Your task to perform on an android device: Search for "usb-c" on walmart.com, select the first entry, add it to the cart, then select checkout. Image 0: 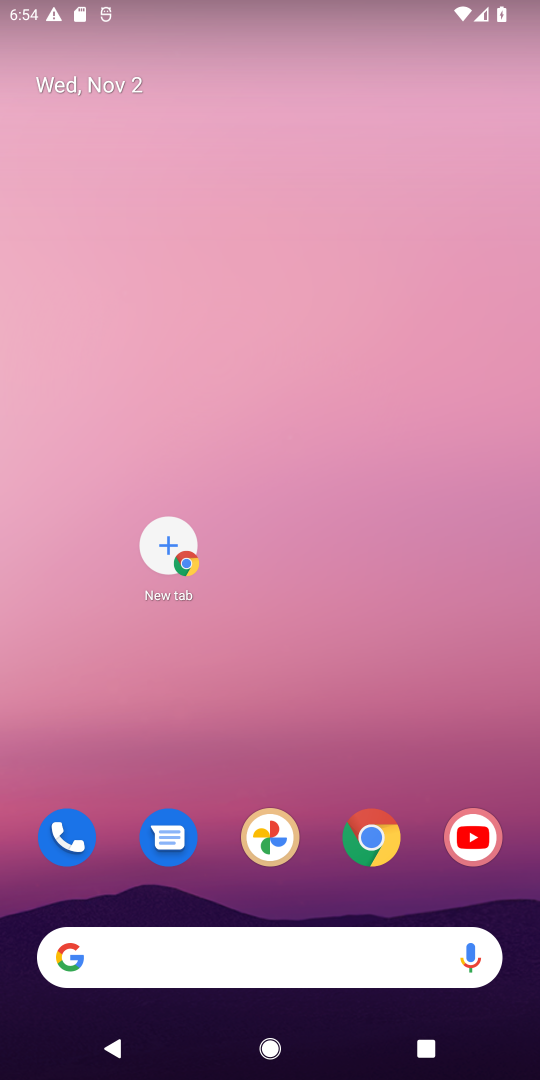
Step 0: click (167, 553)
Your task to perform on an android device: Search for "usb-c" on walmart.com, select the first entry, add it to the cart, then select checkout. Image 1: 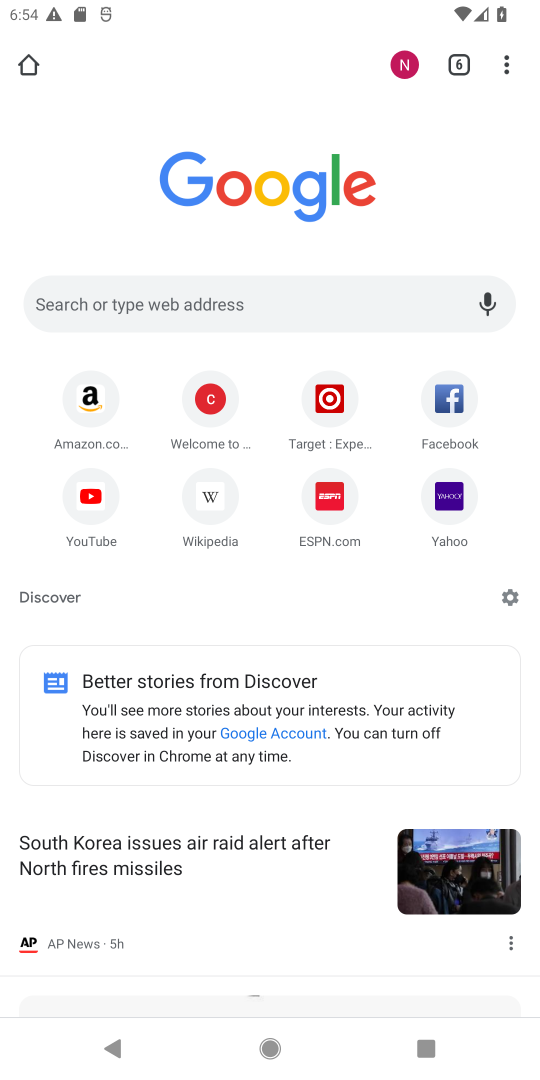
Step 1: click (242, 306)
Your task to perform on an android device: Search for "usb-c" on walmart.com, select the first entry, add it to the cart, then select checkout. Image 2: 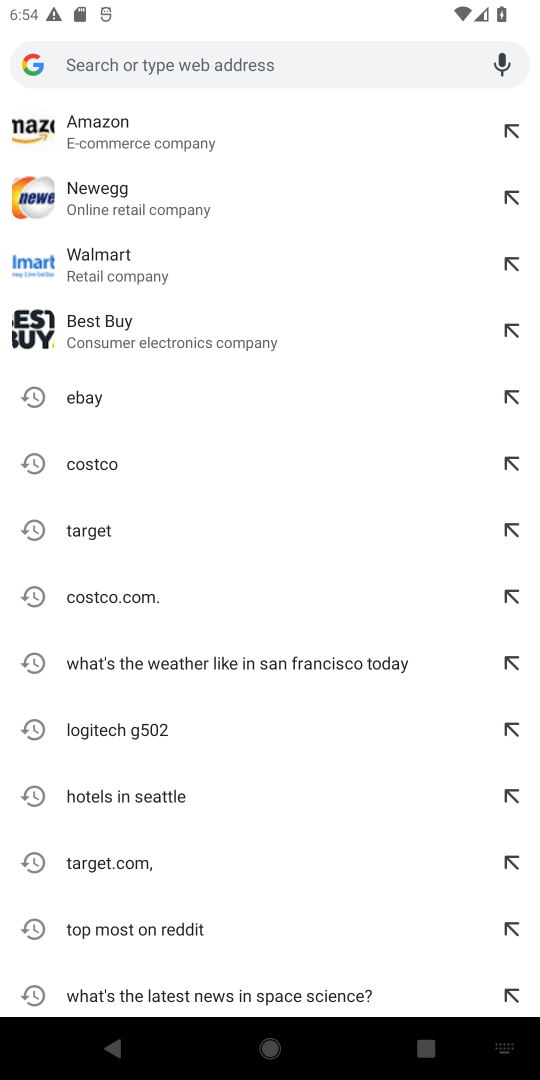
Step 2: type "walmark.com"
Your task to perform on an android device: Search for "usb-c" on walmart.com, select the first entry, add it to the cart, then select checkout. Image 3: 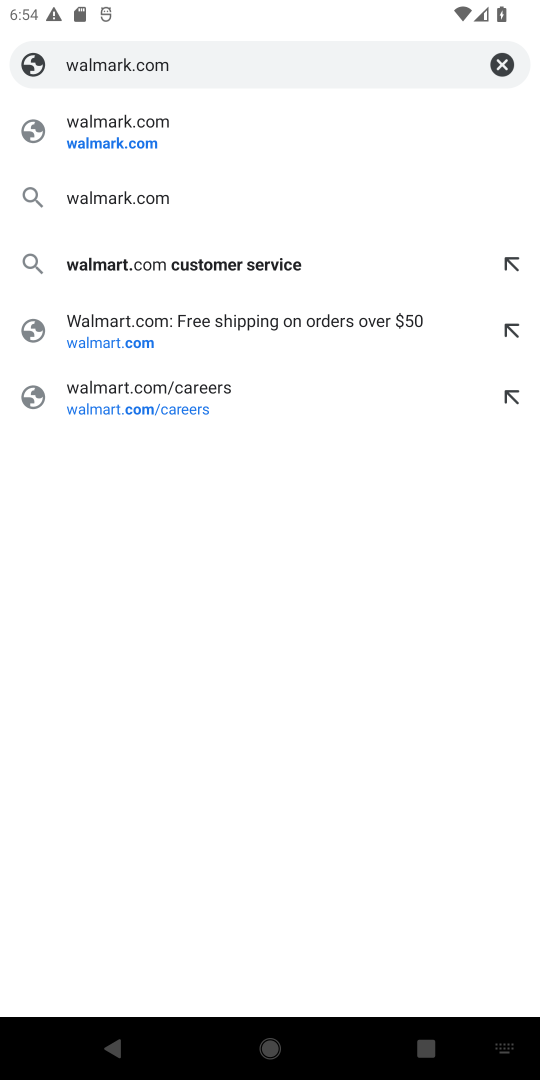
Step 3: click (216, 331)
Your task to perform on an android device: Search for "usb-c" on walmart.com, select the first entry, add it to the cart, then select checkout. Image 4: 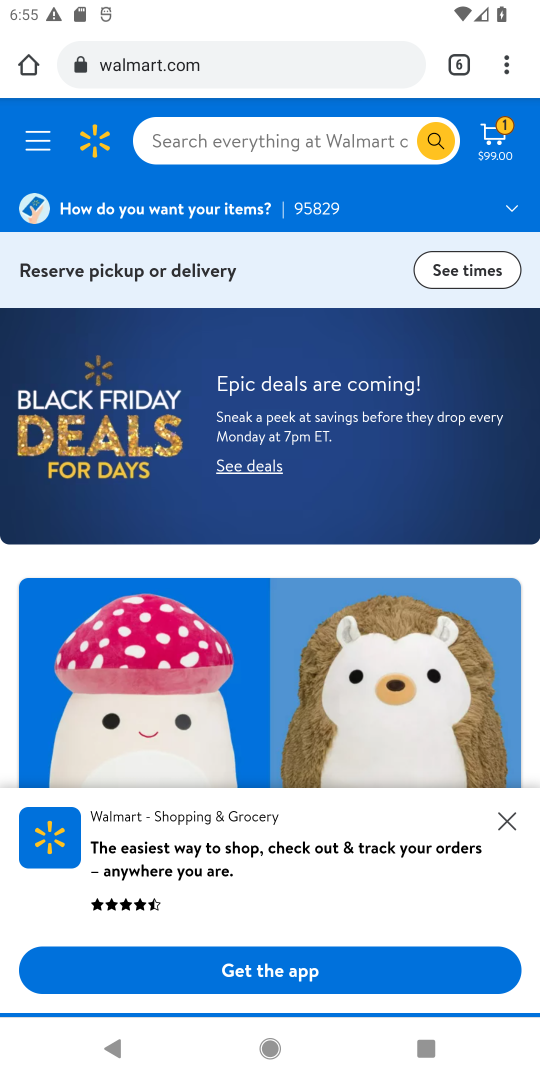
Step 4: click (232, 60)
Your task to perform on an android device: Search for "usb-c" on walmart.com, select the first entry, add it to the cart, then select checkout. Image 5: 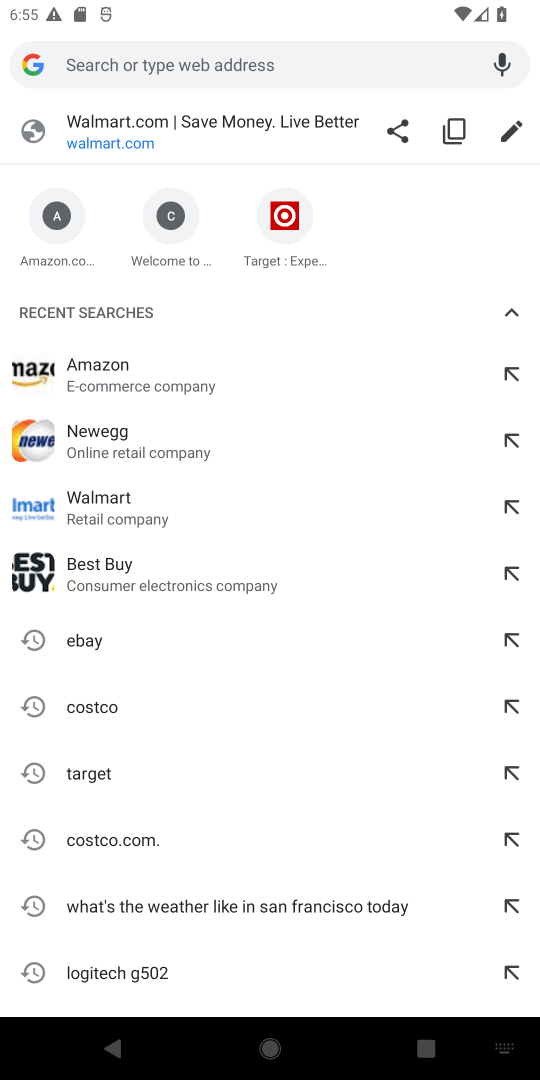
Step 5: type "walmart"
Your task to perform on an android device: Search for "usb-c" on walmart.com, select the first entry, add it to the cart, then select checkout. Image 6: 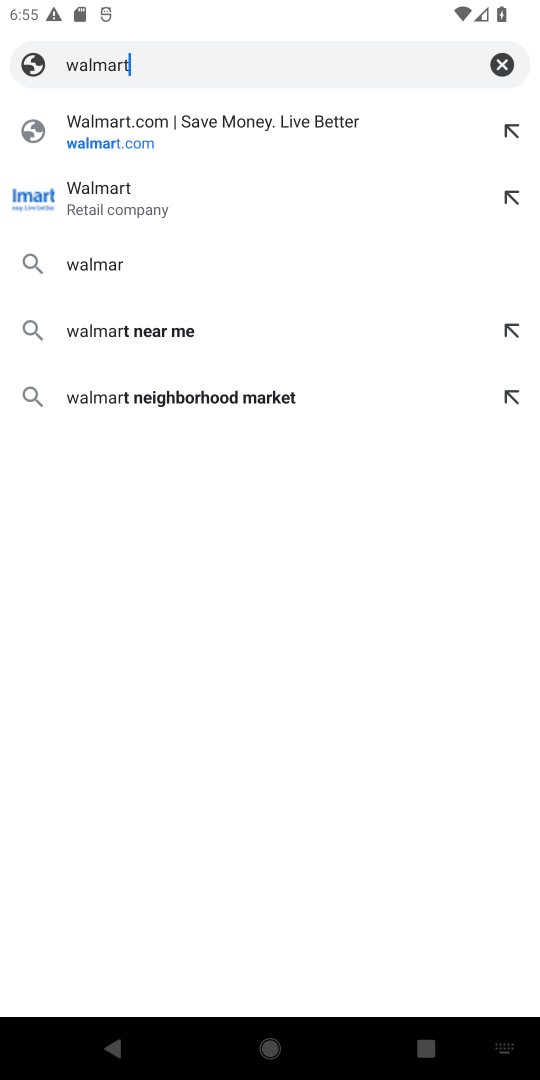
Step 6: type ""
Your task to perform on an android device: Search for "usb-c" on walmart.com, select the first entry, add it to the cart, then select checkout. Image 7: 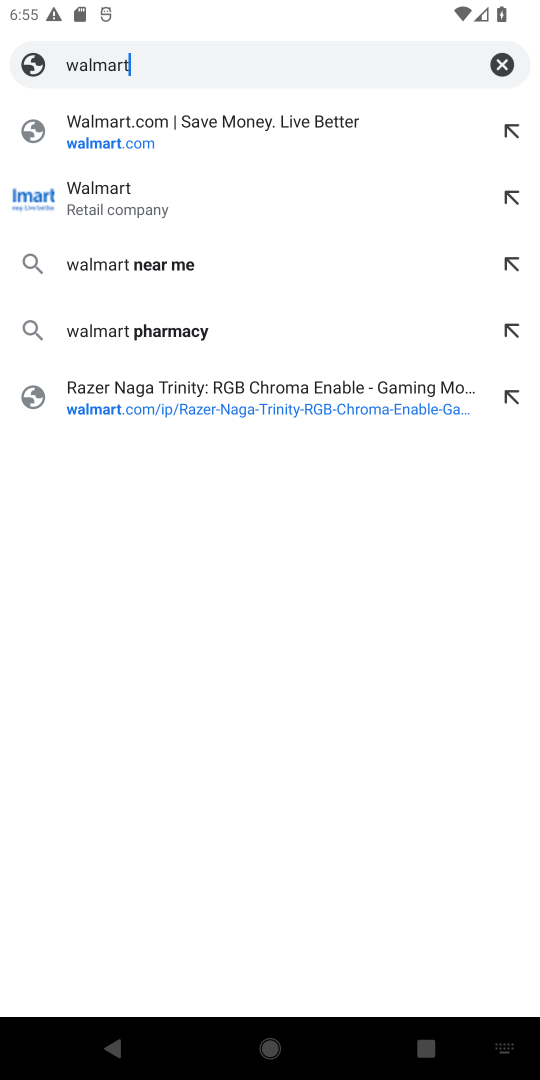
Step 7: click (107, 204)
Your task to perform on an android device: Search for "usb-c" on walmart.com, select the first entry, add it to the cart, then select checkout. Image 8: 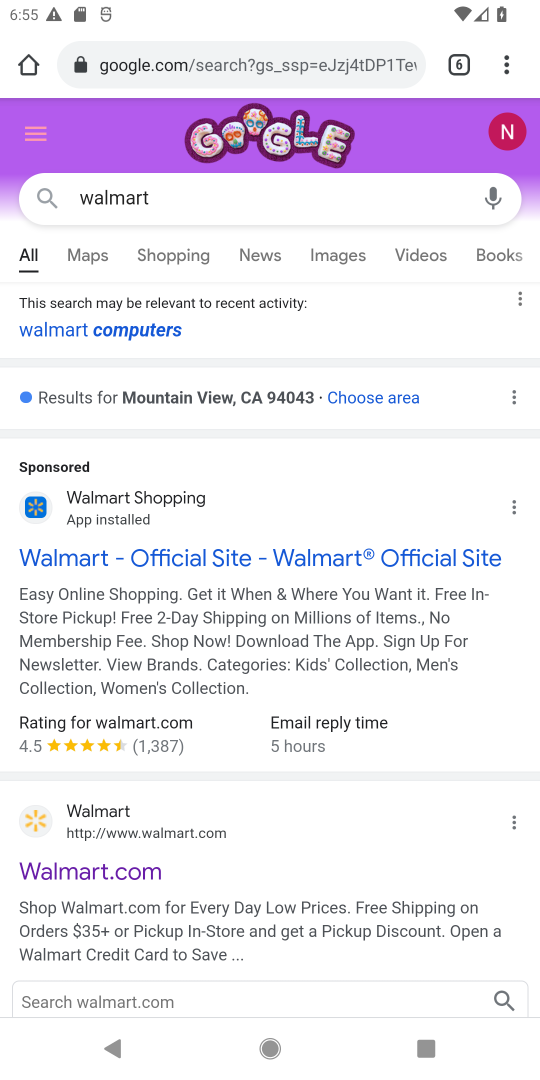
Step 8: click (216, 559)
Your task to perform on an android device: Search for "usb-c" on walmart.com, select the first entry, add it to the cart, then select checkout. Image 9: 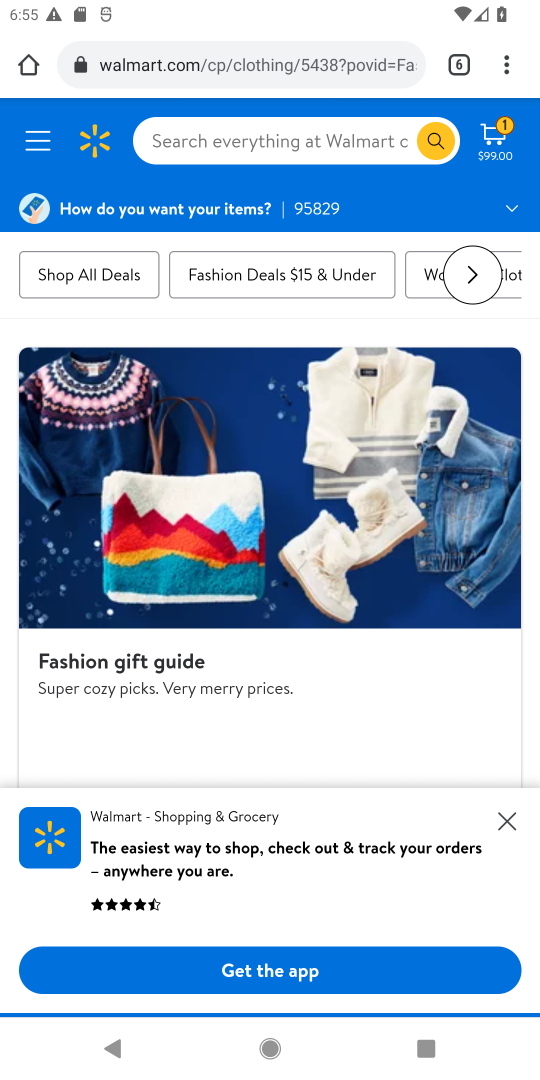
Step 9: click (234, 146)
Your task to perform on an android device: Search for "usb-c" on walmart.com, select the first entry, add it to the cart, then select checkout. Image 10: 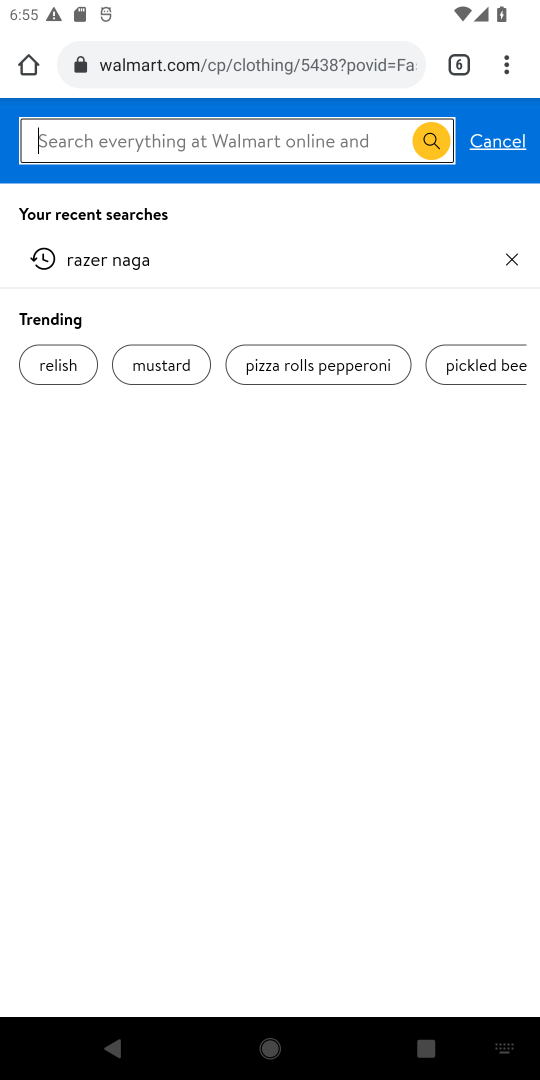
Step 10: type "usb-c"
Your task to perform on an android device: Search for "usb-c" on walmart.com, select the first entry, add it to the cart, then select checkout. Image 11: 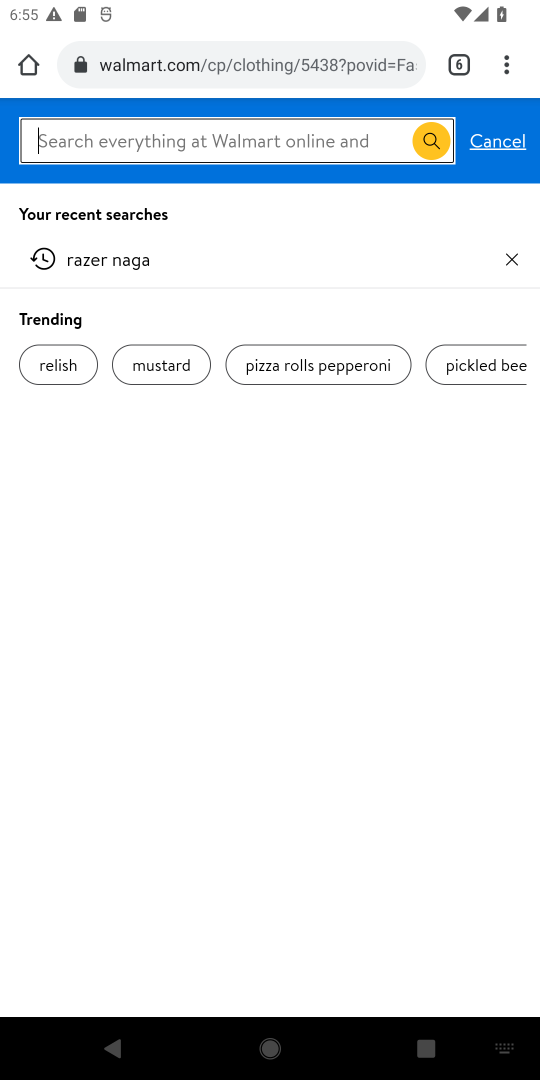
Step 11: type ""
Your task to perform on an android device: Search for "usb-c" on walmart.com, select the first entry, add it to the cart, then select checkout. Image 12: 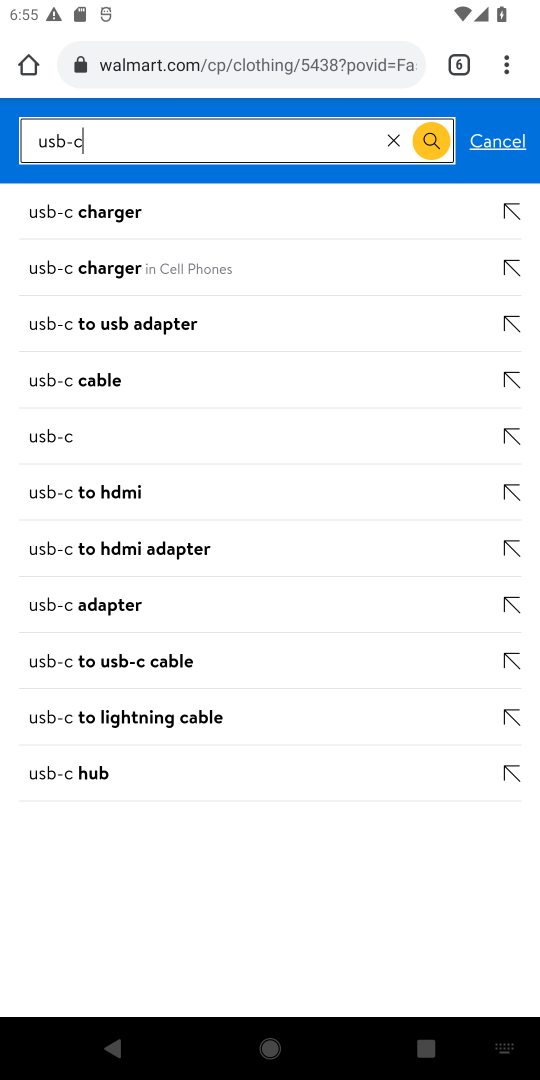
Step 12: click (119, 218)
Your task to perform on an android device: Search for "usb-c" on walmart.com, select the first entry, add it to the cart, then select checkout. Image 13: 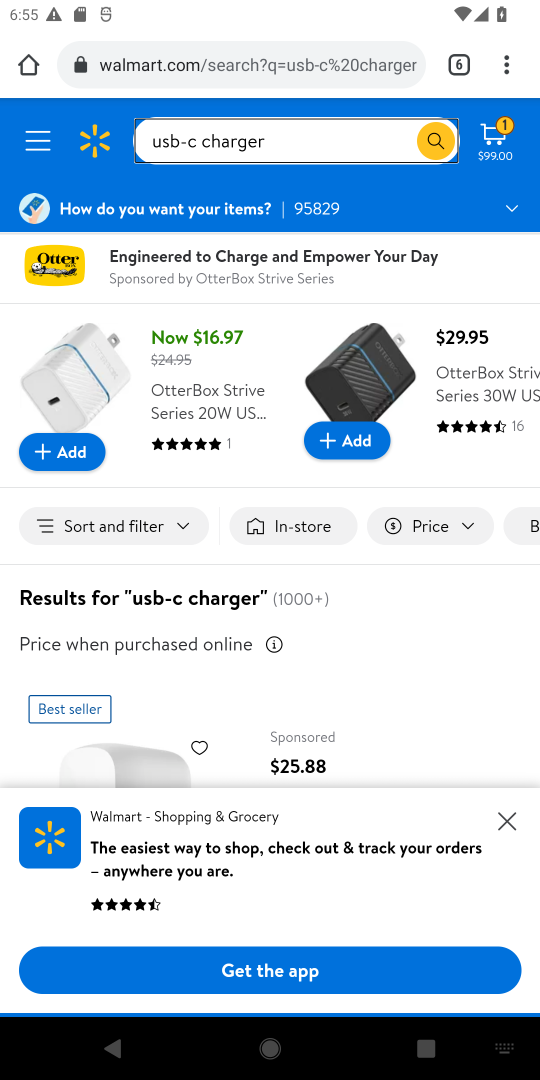
Step 13: drag from (308, 661) to (335, 439)
Your task to perform on an android device: Search for "usb-c" on walmart.com, select the first entry, add it to the cart, then select checkout. Image 14: 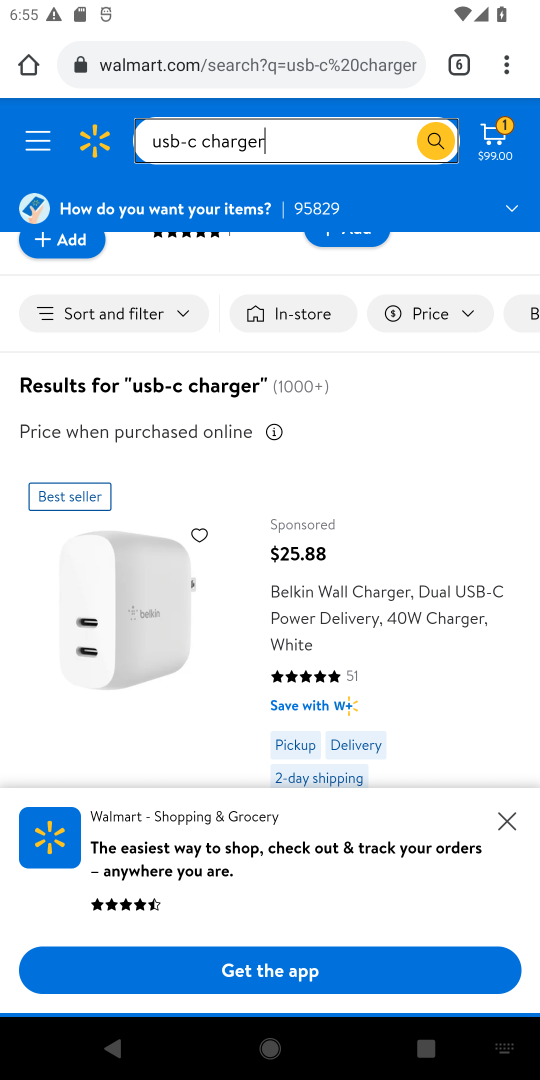
Step 14: drag from (296, 673) to (308, 533)
Your task to perform on an android device: Search for "usb-c" on walmart.com, select the first entry, add it to the cart, then select checkout. Image 15: 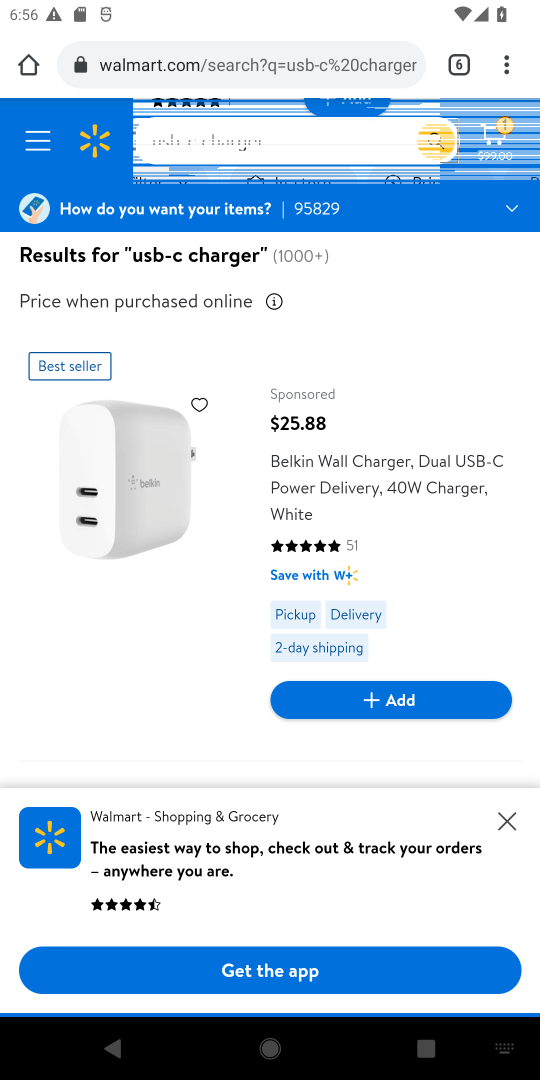
Step 15: click (500, 822)
Your task to perform on an android device: Search for "usb-c" on walmart.com, select the first entry, add it to the cart, then select checkout. Image 16: 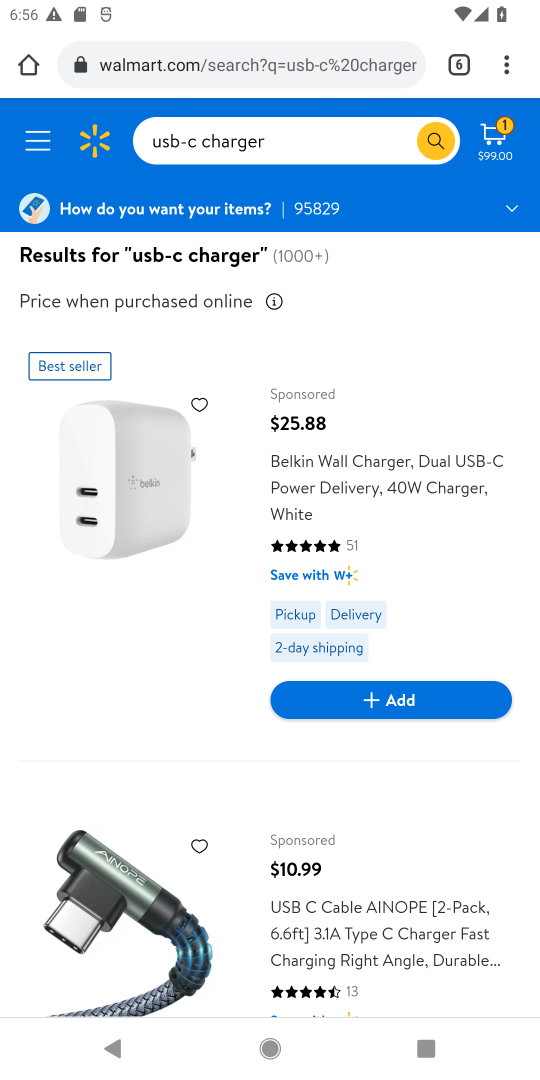
Step 16: drag from (317, 896) to (324, 786)
Your task to perform on an android device: Search for "usb-c" on walmart.com, select the first entry, add it to the cart, then select checkout. Image 17: 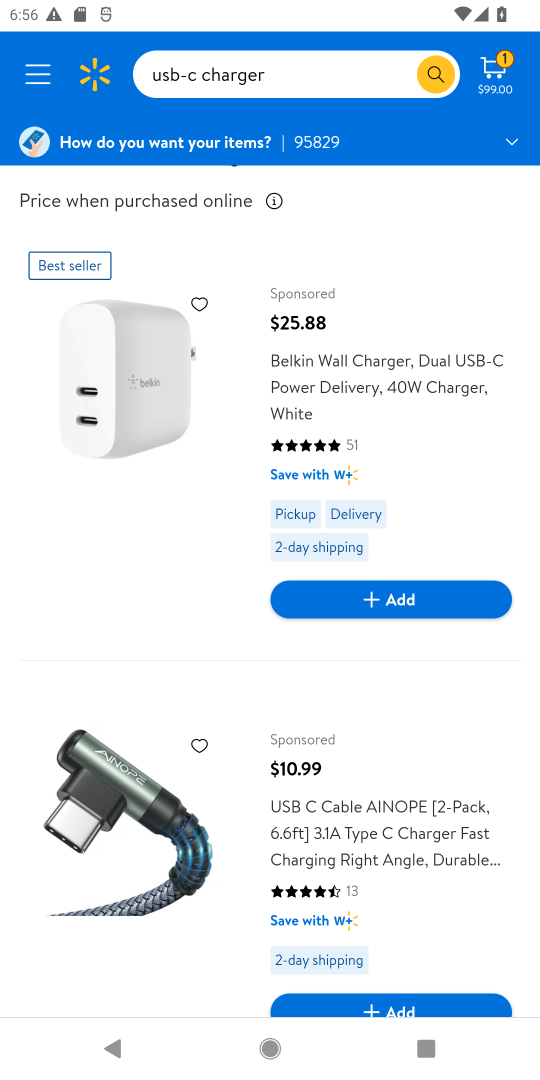
Step 17: drag from (338, 836) to (350, 756)
Your task to perform on an android device: Search for "usb-c" on walmart.com, select the first entry, add it to the cart, then select checkout. Image 18: 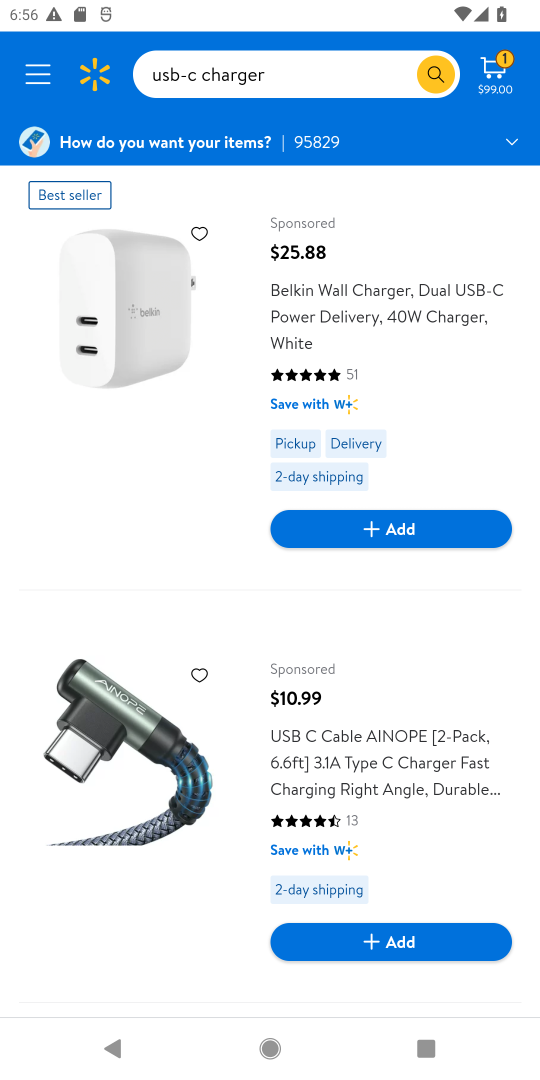
Step 18: click (270, 730)
Your task to perform on an android device: Search for "usb-c" on walmart.com, select the first entry, add it to the cart, then select checkout. Image 19: 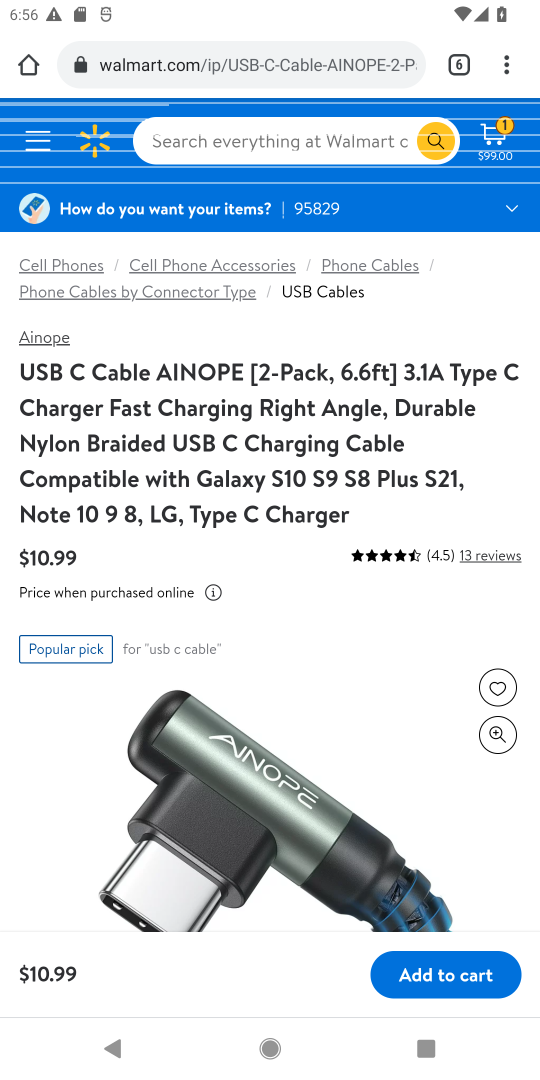
Step 19: drag from (273, 798) to (325, 676)
Your task to perform on an android device: Search for "usb-c" on walmart.com, select the first entry, add it to the cart, then select checkout. Image 20: 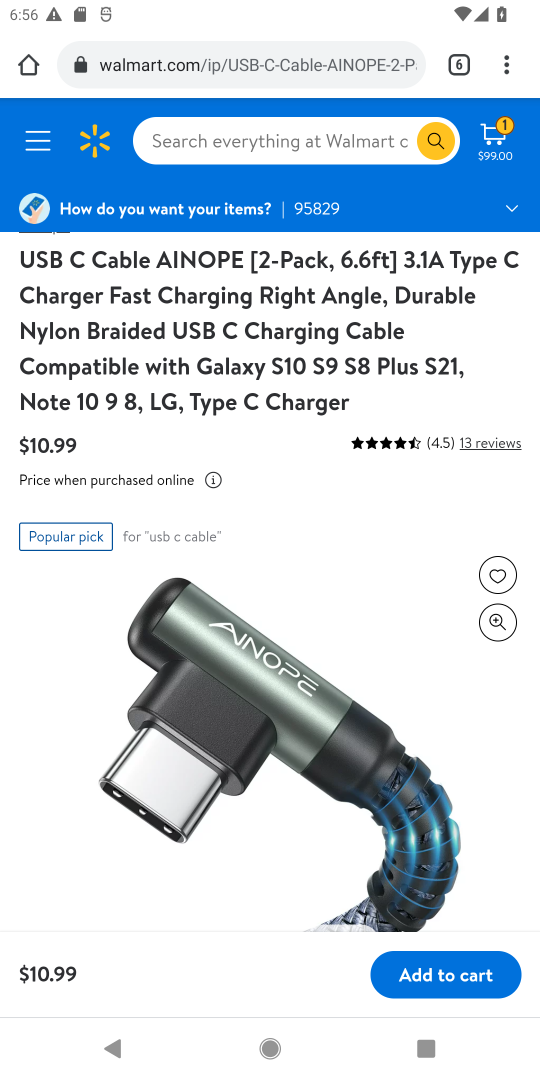
Step 20: drag from (321, 704) to (305, 415)
Your task to perform on an android device: Search for "usb-c" on walmart.com, select the first entry, add it to the cart, then select checkout. Image 21: 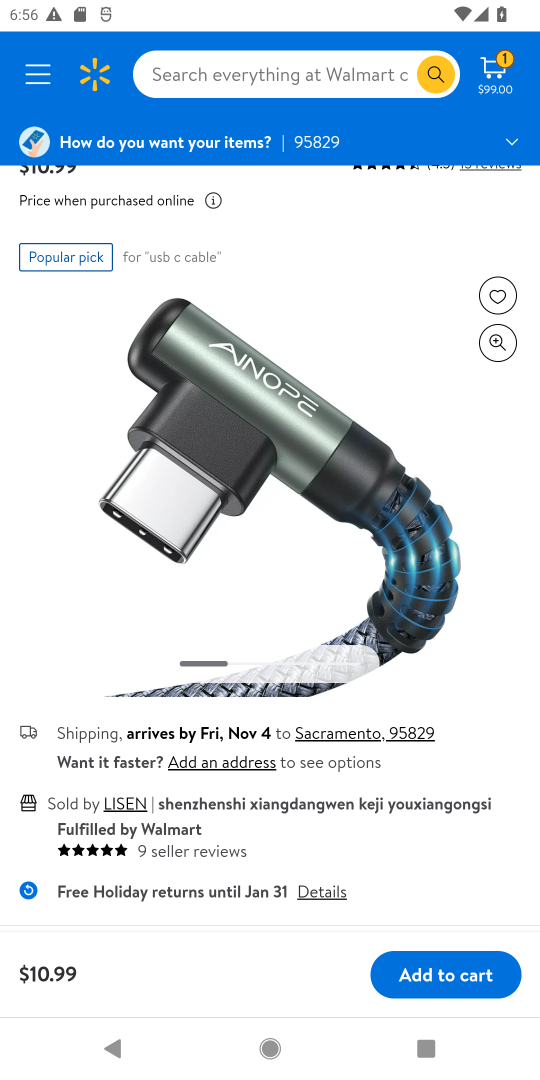
Step 21: drag from (255, 563) to (263, 348)
Your task to perform on an android device: Search for "usb-c" on walmart.com, select the first entry, add it to the cart, then select checkout. Image 22: 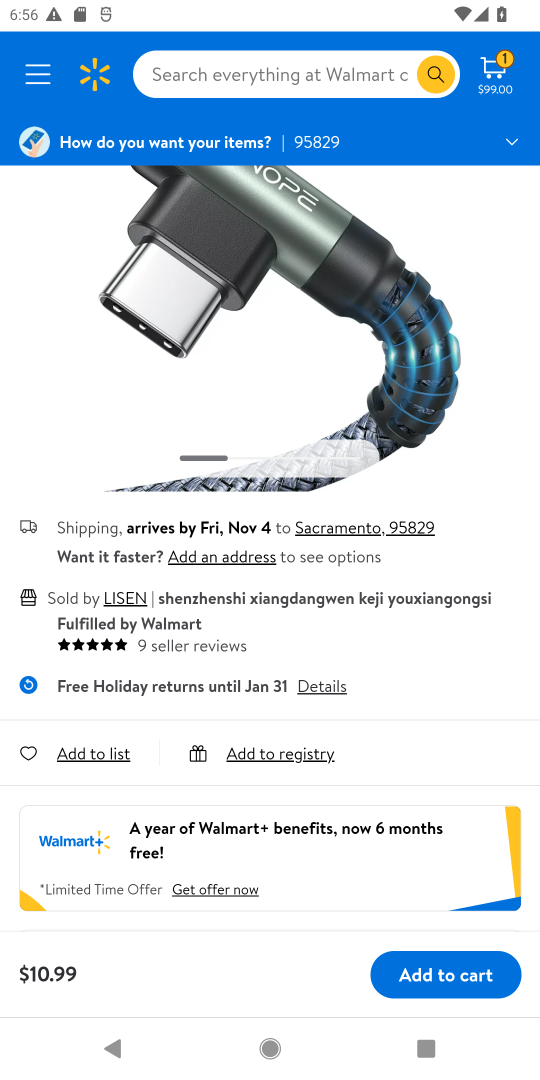
Step 22: drag from (276, 736) to (327, 339)
Your task to perform on an android device: Search for "usb-c" on walmart.com, select the first entry, add it to the cart, then select checkout. Image 23: 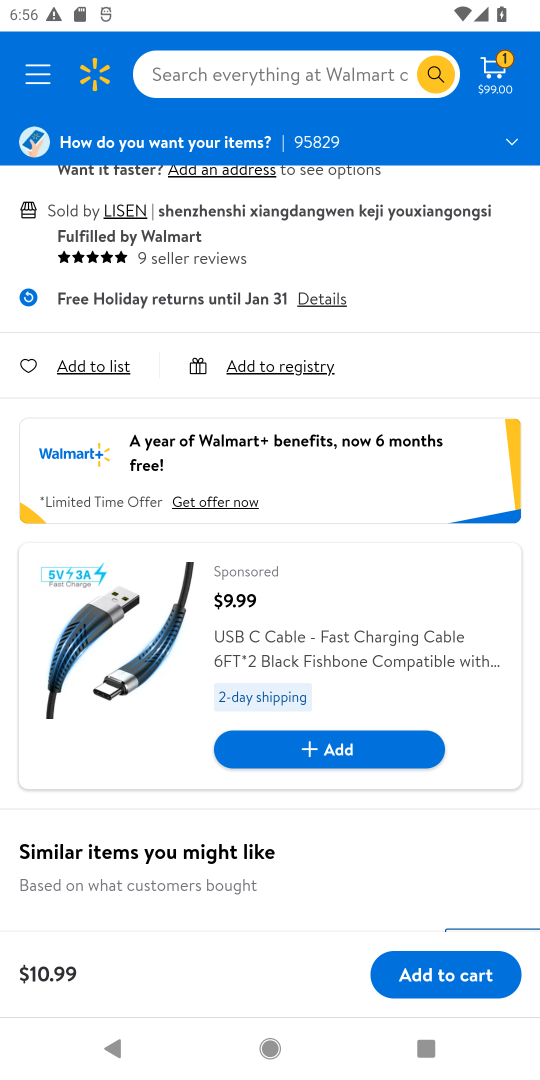
Step 23: click (258, 877)
Your task to perform on an android device: Search for "usb-c" on walmart.com, select the first entry, add it to the cart, then select checkout. Image 24: 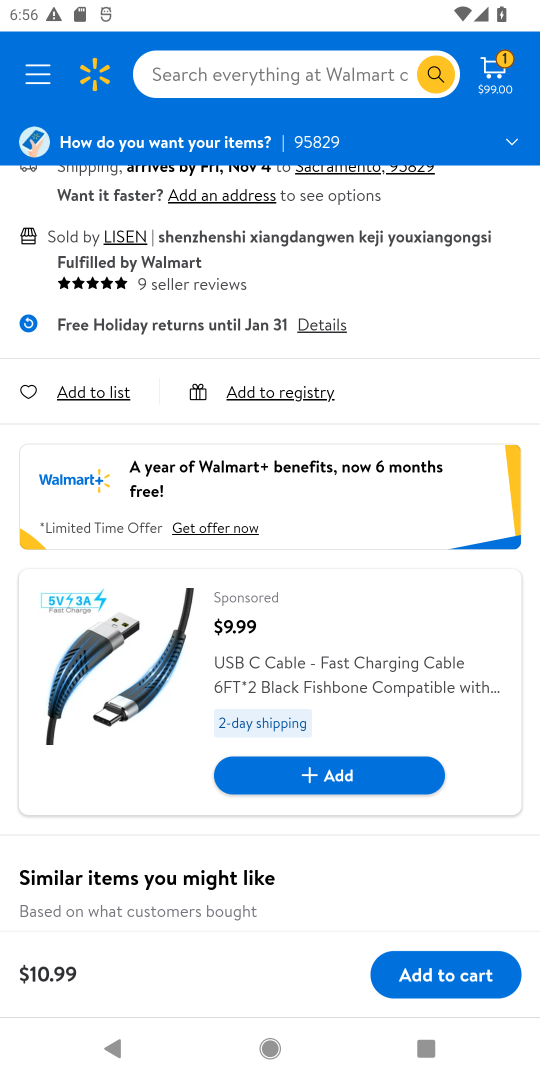
Step 24: drag from (353, 460) to (316, 822)
Your task to perform on an android device: Search for "usb-c" on walmart.com, select the first entry, add it to the cart, then select checkout. Image 25: 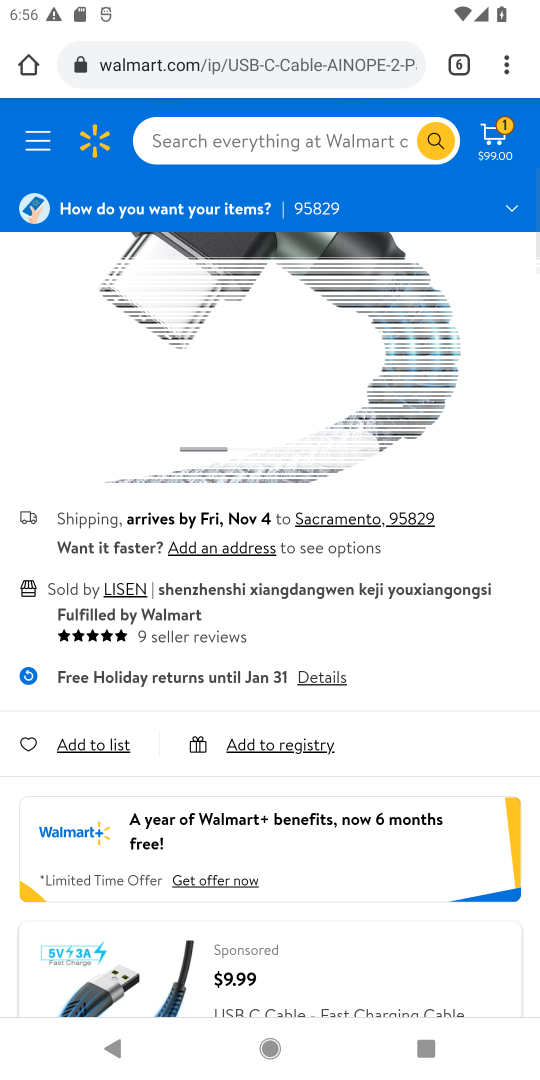
Step 25: drag from (343, 510) to (292, 841)
Your task to perform on an android device: Search for "usb-c" on walmart.com, select the first entry, add it to the cart, then select checkout. Image 26: 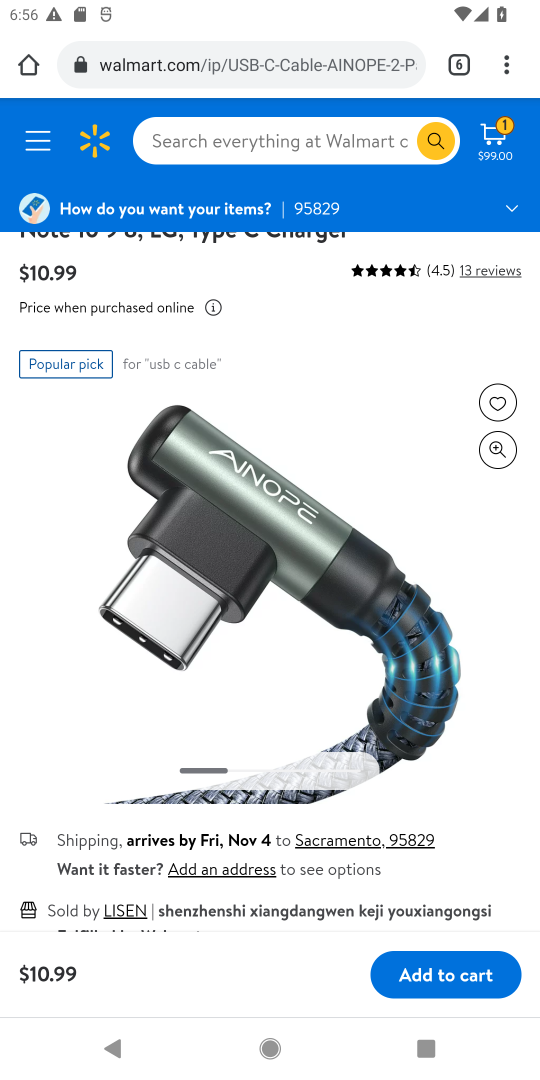
Step 26: drag from (354, 569) to (330, 783)
Your task to perform on an android device: Search for "usb-c" on walmart.com, select the first entry, add it to the cart, then select checkout. Image 27: 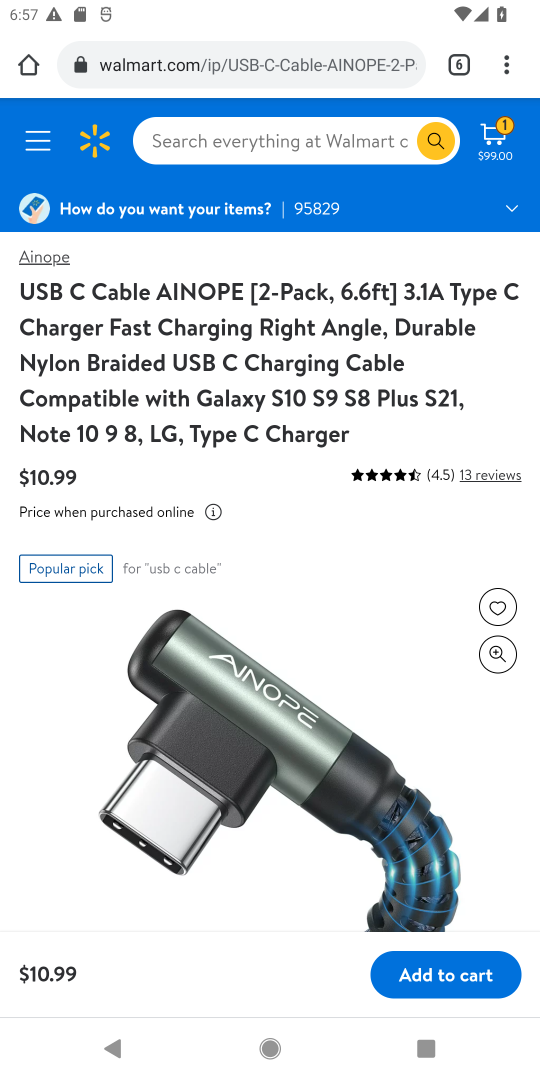
Step 27: click (461, 983)
Your task to perform on an android device: Search for "usb-c" on walmart.com, select the first entry, add it to the cart, then select checkout. Image 28: 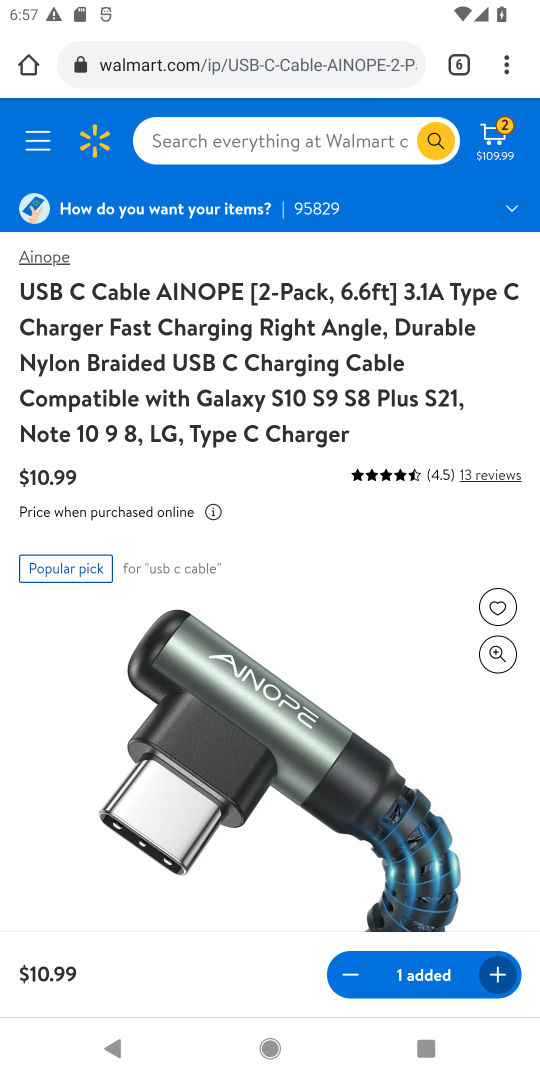
Step 28: click (504, 138)
Your task to perform on an android device: Search for "usb-c" on walmart.com, select the first entry, add it to the cart, then select checkout. Image 29: 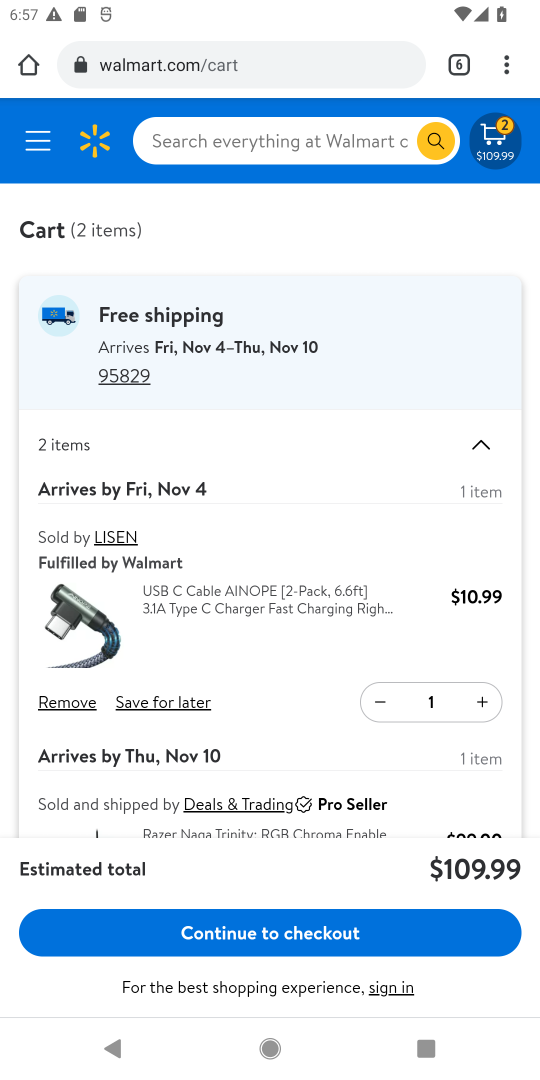
Step 29: click (271, 936)
Your task to perform on an android device: Search for "usb-c" on walmart.com, select the first entry, add it to the cart, then select checkout. Image 30: 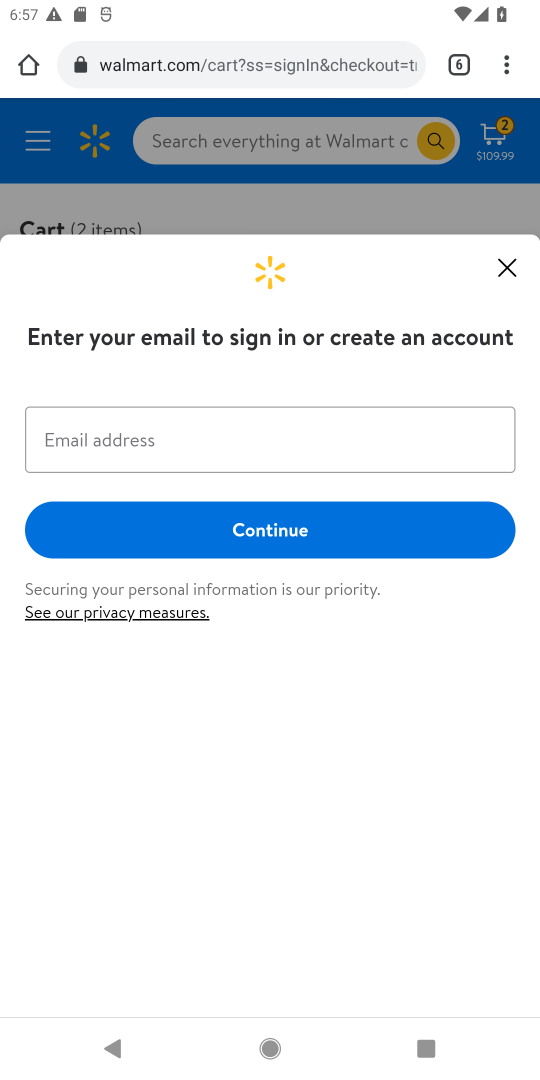
Step 30: task complete